Your task to perform on an android device: Go to ESPN.com Image 0: 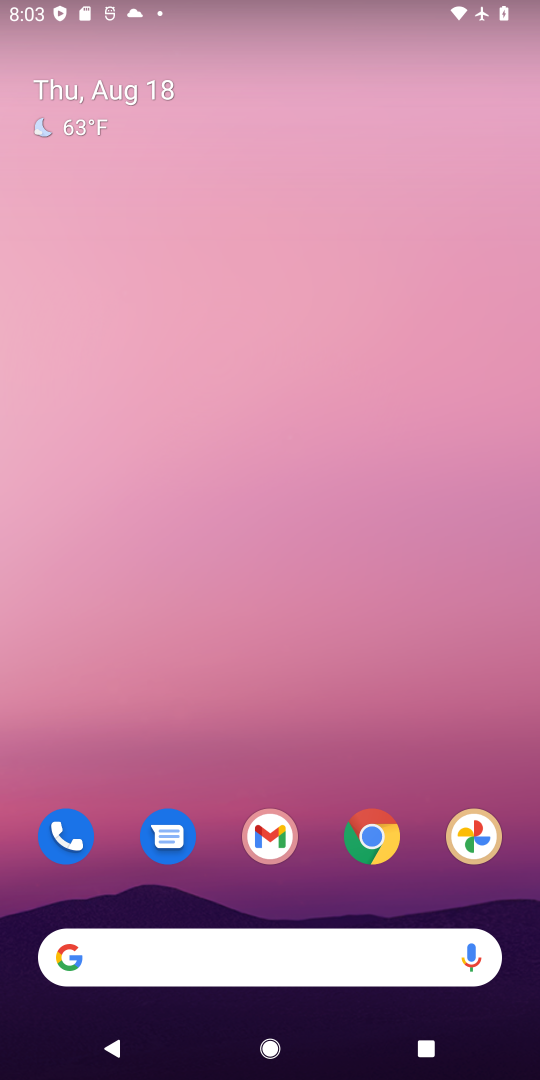
Step 0: drag from (384, 711) to (413, 24)
Your task to perform on an android device: Go to ESPN.com Image 1: 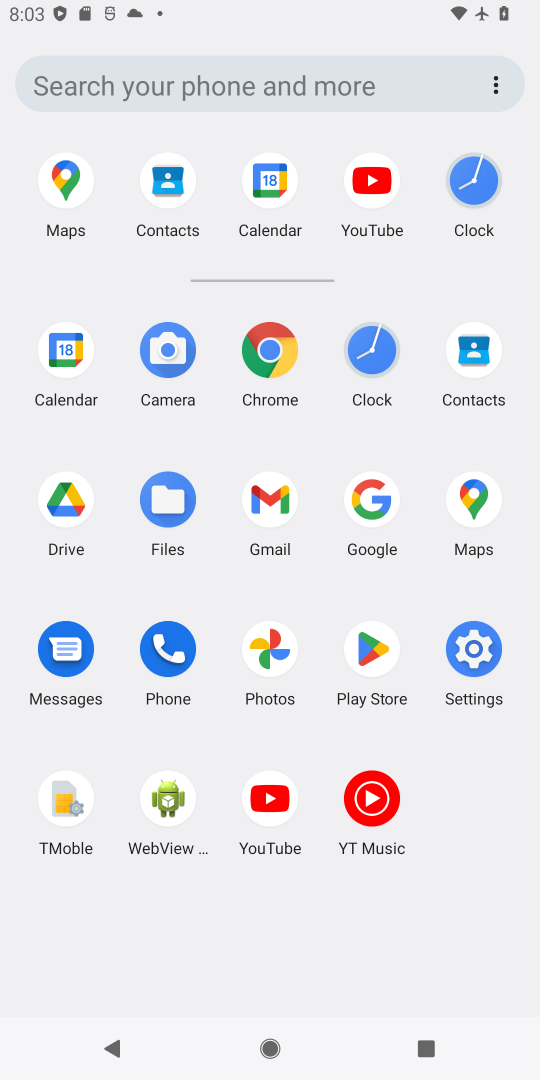
Step 1: click (268, 351)
Your task to perform on an android device: Go to ESPN.com Image 2: 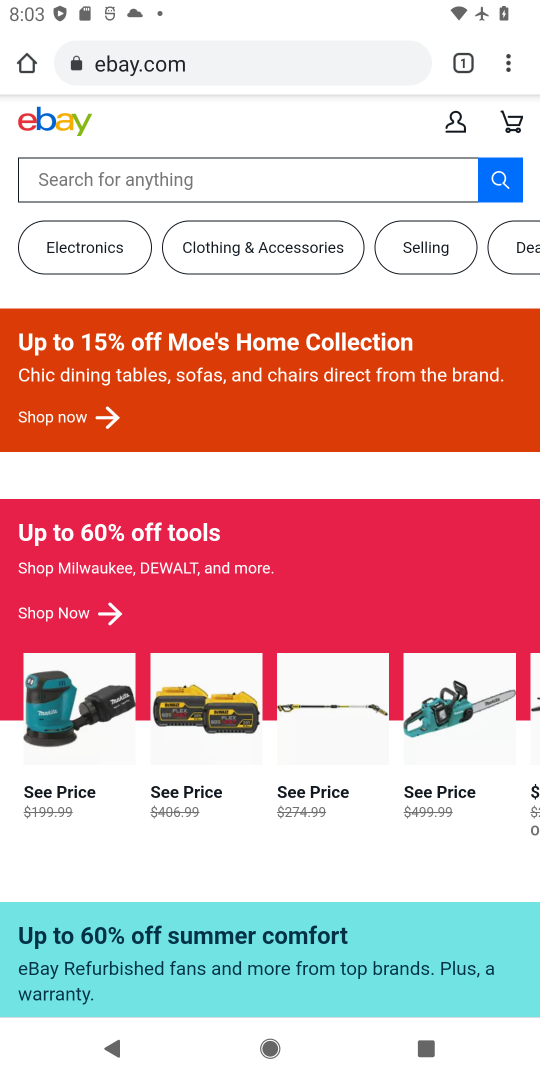
Step 2: click (301, 58)
Your task to perform on an android device: Go to ESPN.com Image 3: 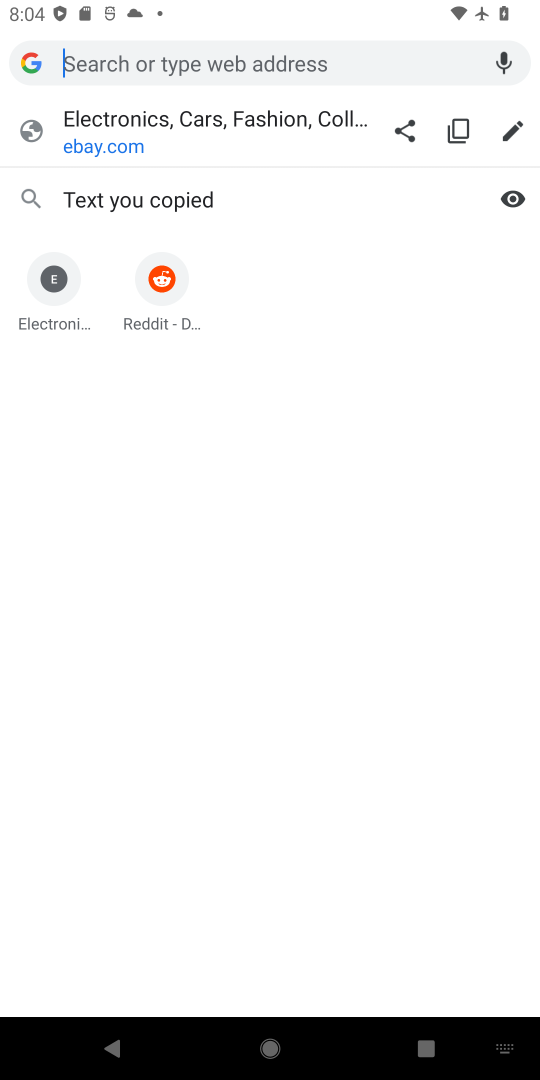
Step 3: type "espn.com"
Your task to perform on an android device: Go to ESPN.com Image 4: 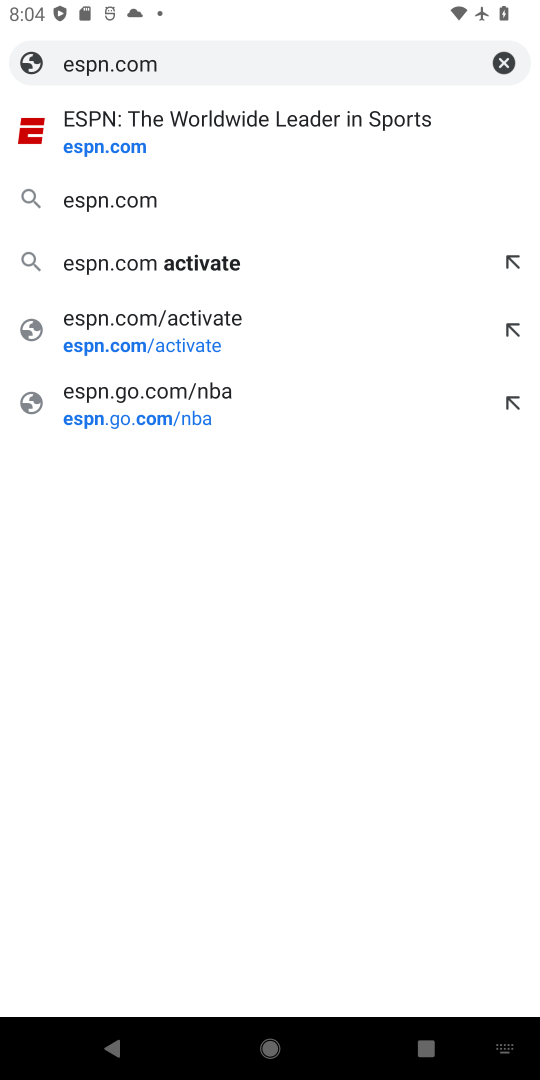
Step 4: click (114, 145)
Your task to perform on an android device: Go to ESPN.com Image 5: 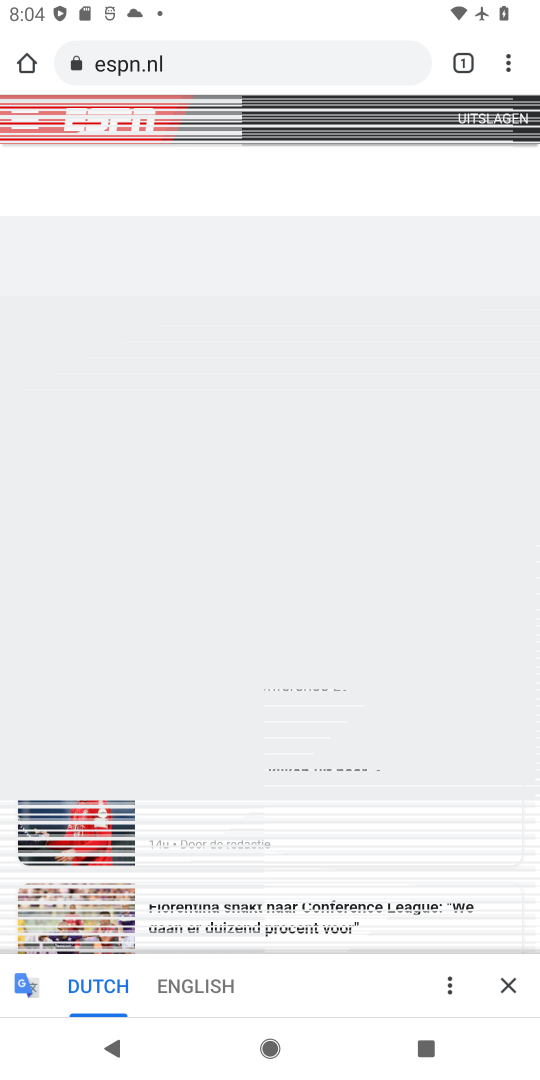
Step 5: task complete